Your task to perform on an android device: Go to settings Image 0: 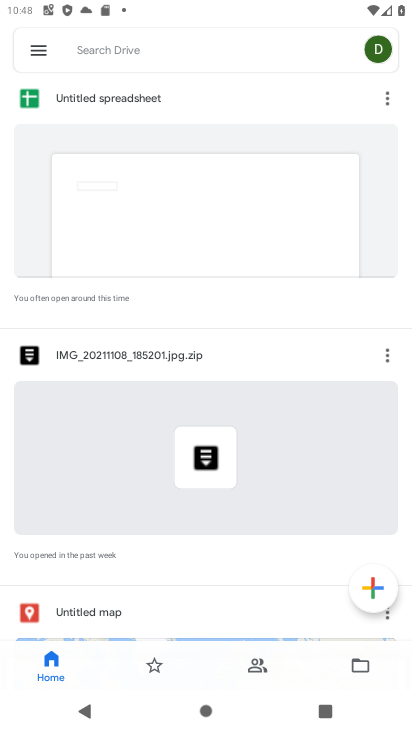
Step 0: press home button
Your task to perform on an android device: Go to settings Image 1: 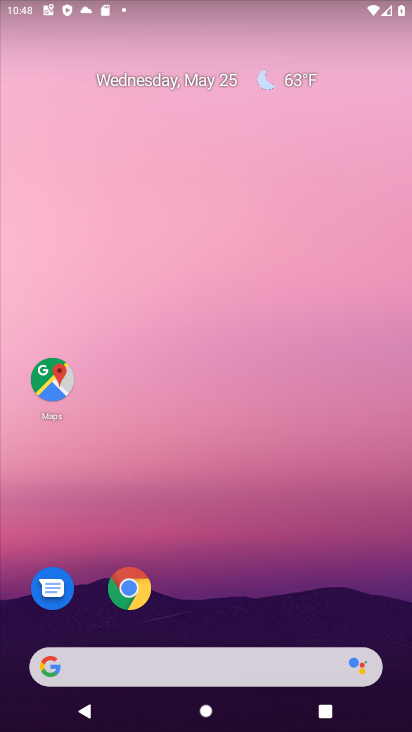
Step 1: drag from (393, 539) to (387, 120)
Your task to perform on an android device: Go to settings Image 2: 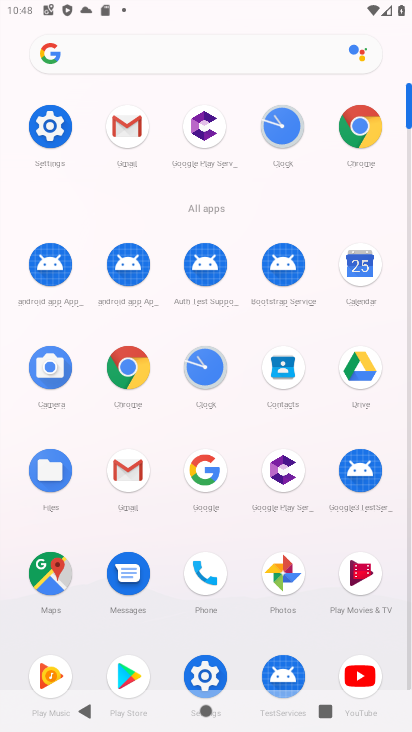
Step 2: click (208, 676)
Your task to perform on an android device: Go to settings Image 3: 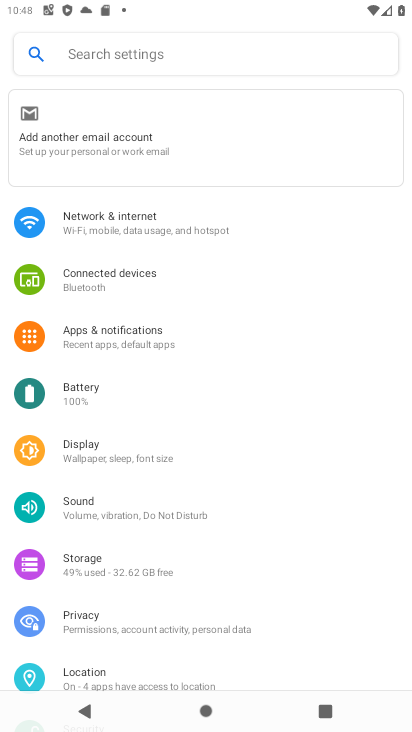
Step 3: task complete